Your task to perform on an android device: Open the stopwatch Image 0: 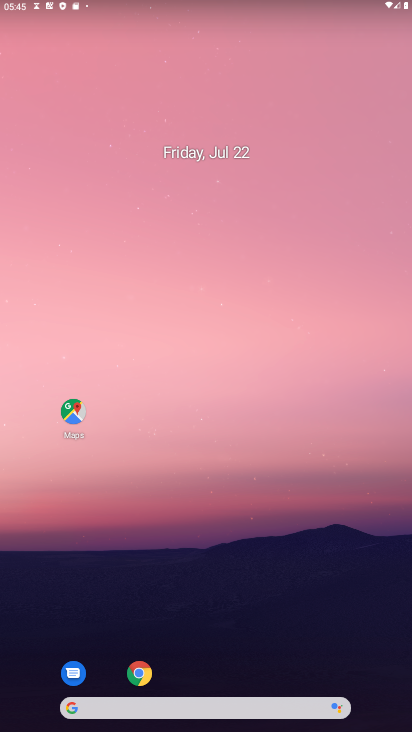
Step 0: press home button
Your task to perform on an android device: Open the stopwatch Image 1: 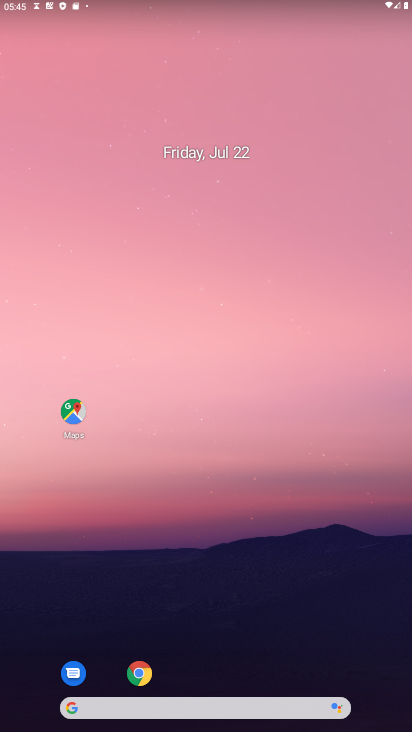
Step 1: drag from (233, 664) to (193, 144)
Your task to perform on an android device: Open the stopwatch Image 2: 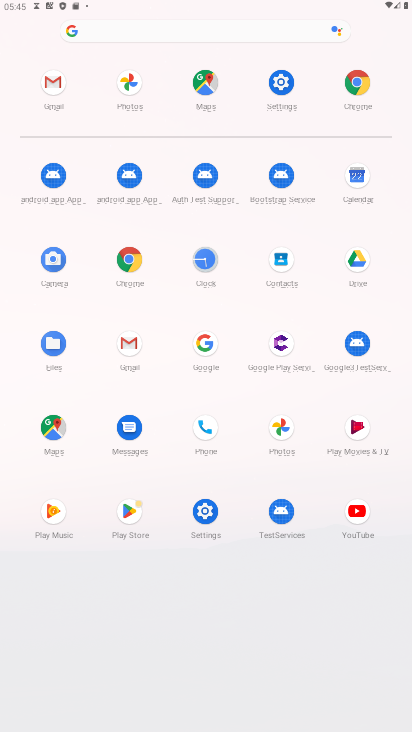
Step 2: click (198, 263)
Your task to perform on an android device: Open the stopwatch Image 3: 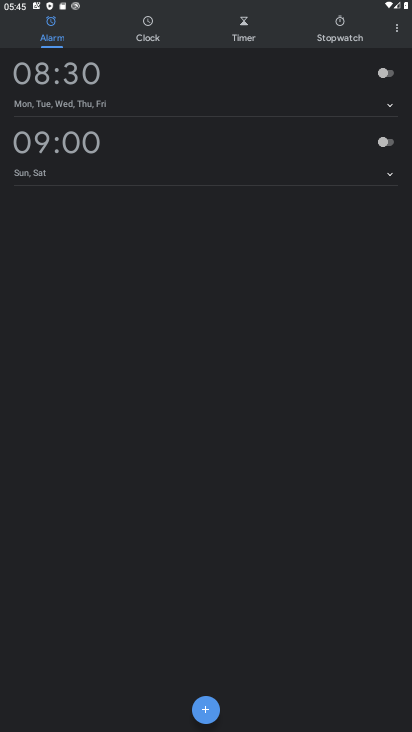
Step 3: click (339, 28)
Your task to perform on an android device: Open the stopwatch Image 4: 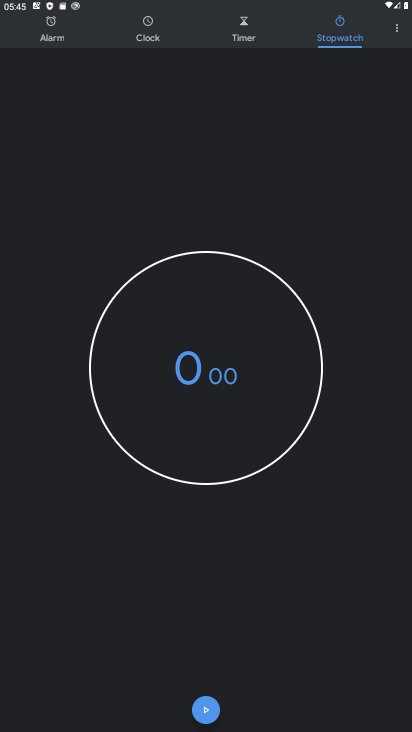
Step 4: task complete